Your task to perform on an android device: Open Chrome and go to settings Image 0: 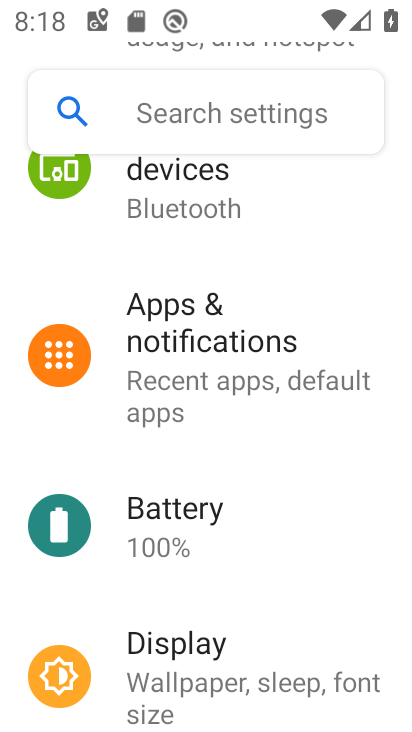
Step 0: press back button
Your task to perform on an android device: Open Chrome and go to settings Image 1: 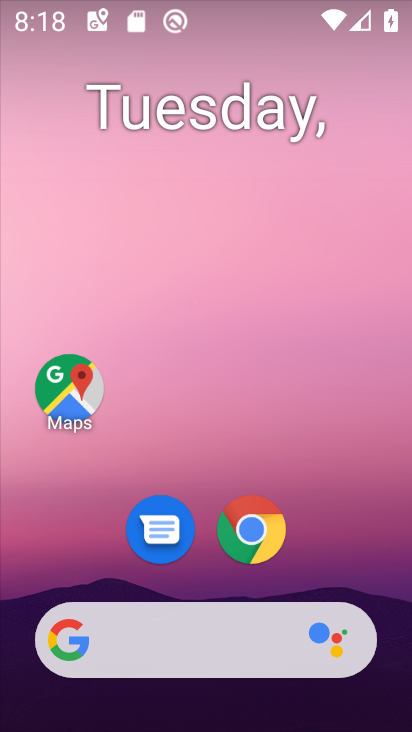
Step 1: click (251, 511)
Your task to perform on an android device: Open Chrome and go to settings Image 2: 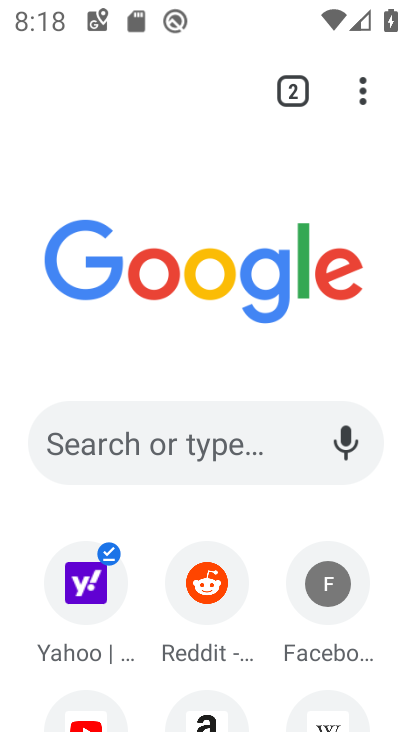
Step 2: task complete